Your task to perform on an android device: add a contact Image 0: 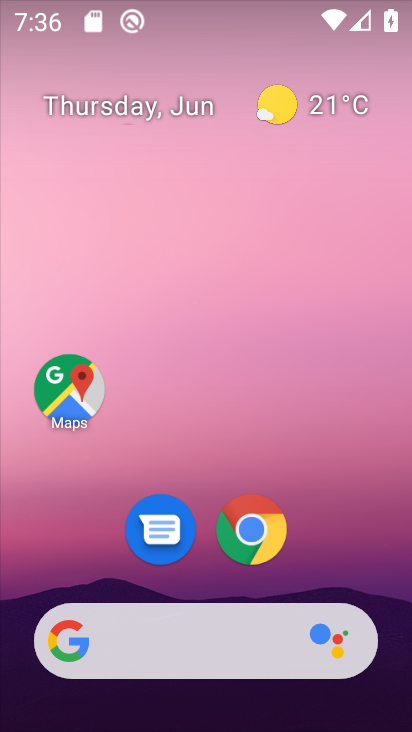
Step 0: drag from (376, 634) to (305, 173)
Your task to perform on an android device: add a contact Image 1: 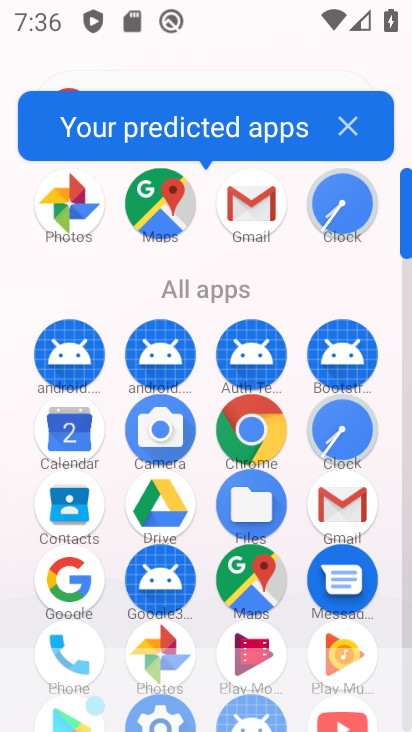
Step 1: click (77, 500)
Your task to perform on an android device: add a contact Image 2: 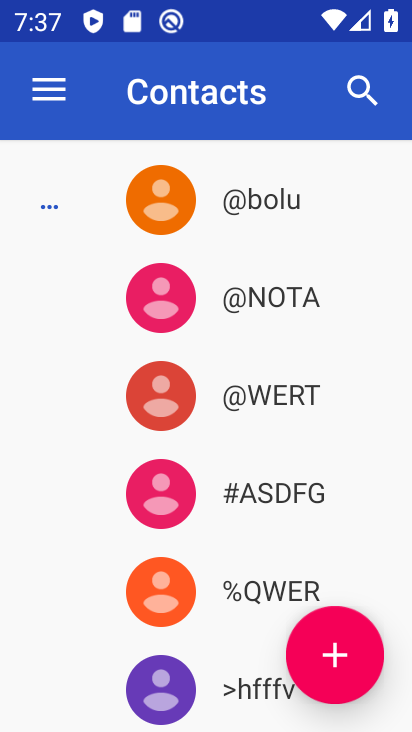
Step 2: click (356, 646)
Your task to perform on an android device: add a contact Image 3: 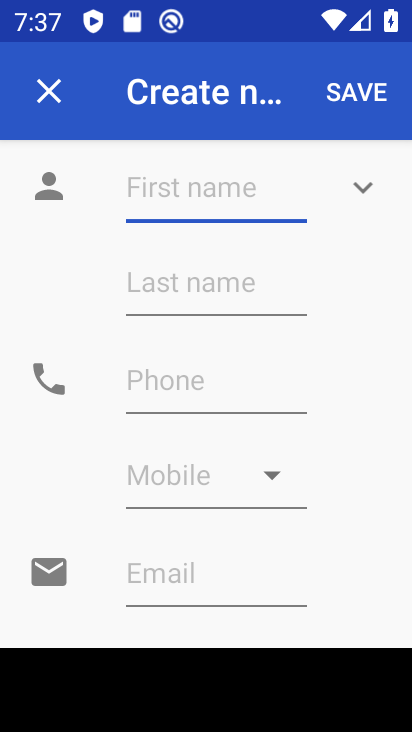
Step 3: type "egxgfgf"
Your task to perform on an android device: add a contact Image 4: 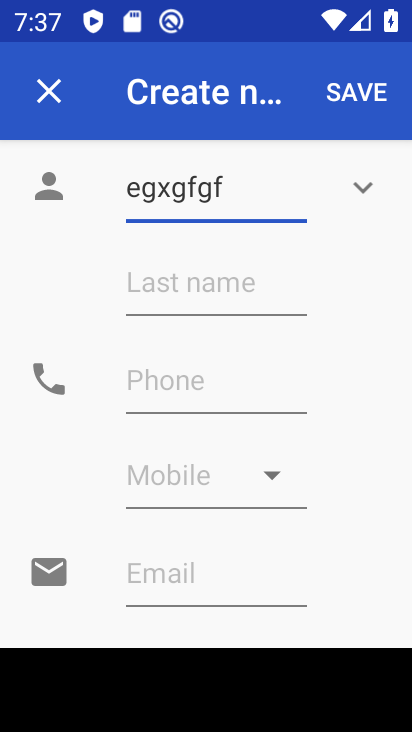
Step 4: click (250, 288)
Your task to perform on an android device: add a contact Image 5: 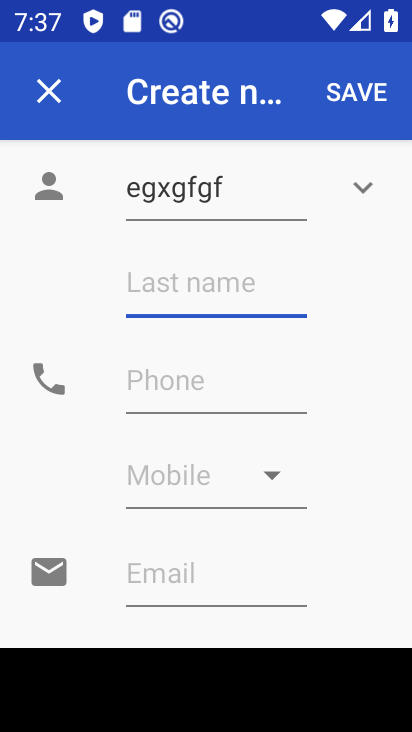
Step 5: type "fddgcjf"
Your task to perform on an android device: add a contact Image 6: 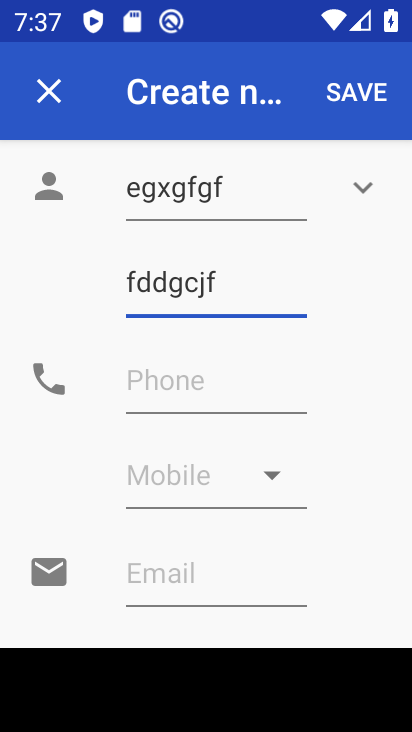
Step 6: click (184, 378)
Your task to perform on an android device: add a contact Image 7: 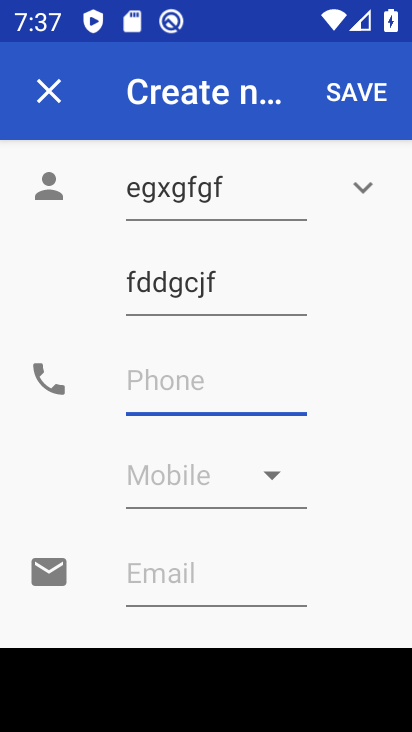
Step 7: type "54546546555"
Your task to perform on an android device: add a contact Image 8: 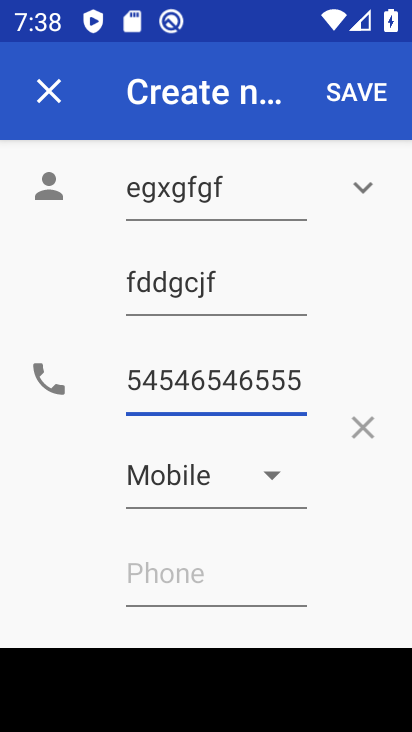
Step 8: click (372, 94)
Your task to perform on an android device: add a contact Image 9: 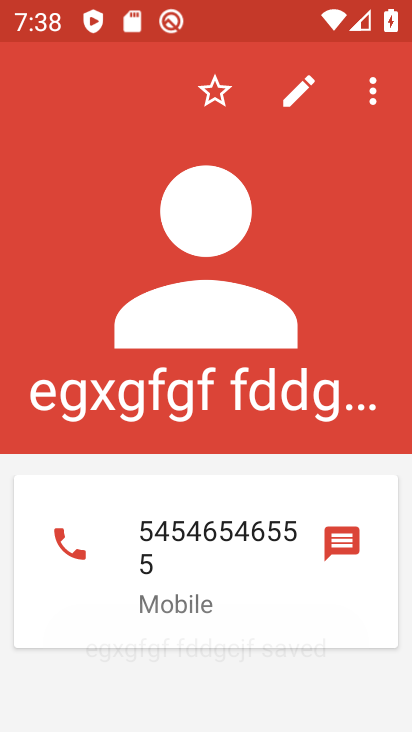
Step 9: task complete